Your task to perform on an android device: Do I have any events this weekend? Image 0: 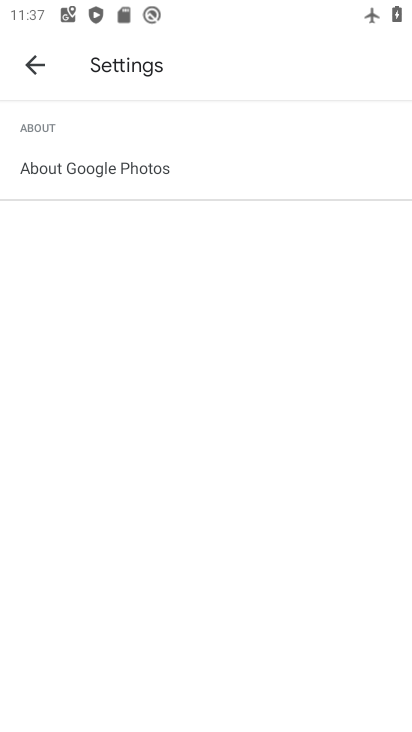
Step 0: press home button
Your task to perform on an android device: Do I have any events this weekend? Image 1: 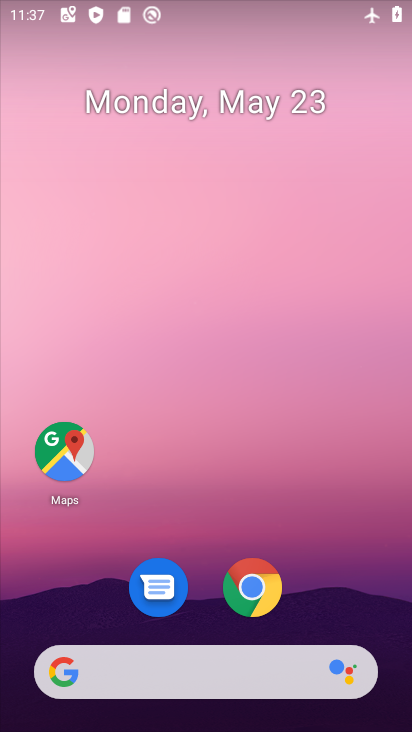
Step 1: drag from (376, 593) to (276, 237)
Your task to perform on an android device: Do I have any events this weekend? Image 2: 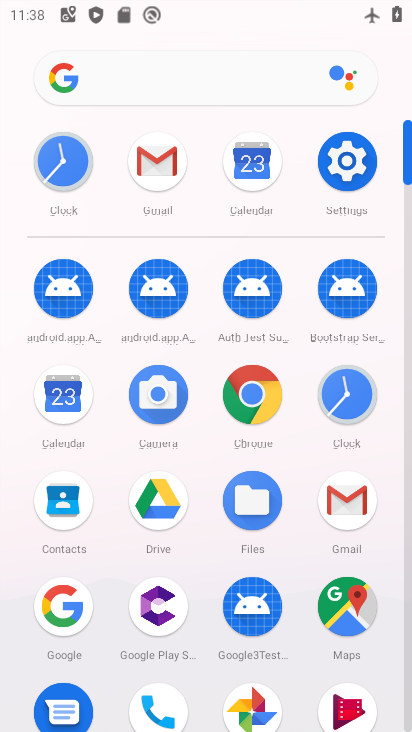
Step 2: click (264, 186)
Your task to perform on an android device: Do I have any events this weekend? Image 3: 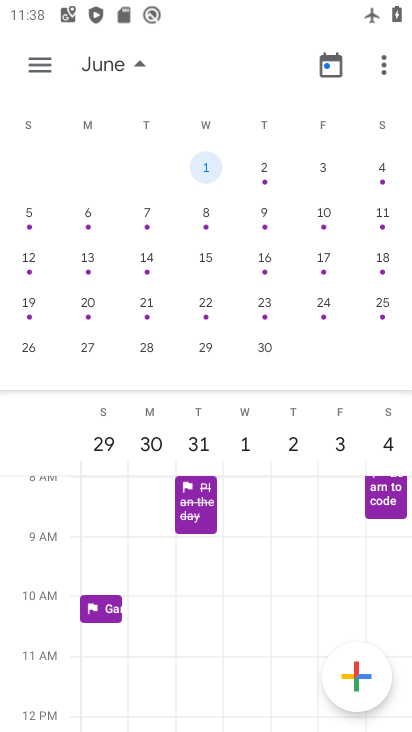
Step 3: click (120, 71)
Your task to perform on an android device: Do I have any events this weekend? Image 4: 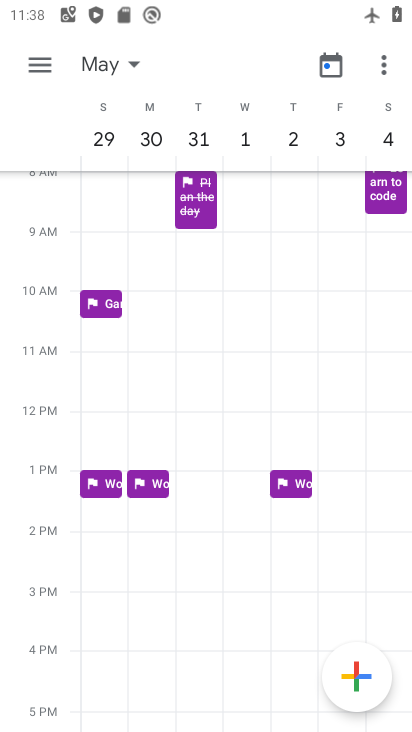
Step 4: click (127, 72)
Your task to perform on an android device: Do I have any events this weekend? Image 5: 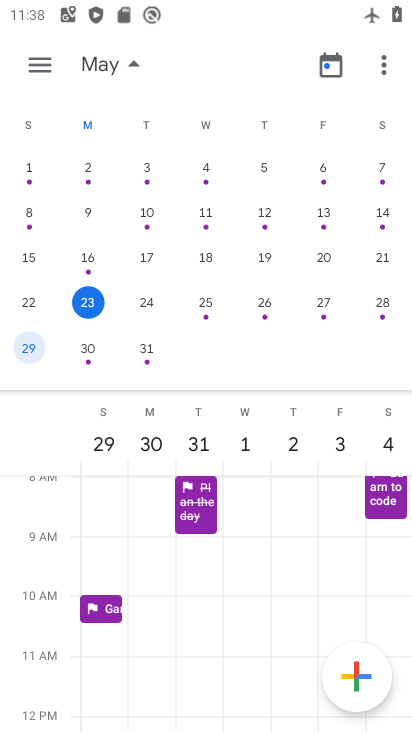
Step 5: click (90, 305)
Your task to perform on an android device: Do I have any events this weekend? Image 6: 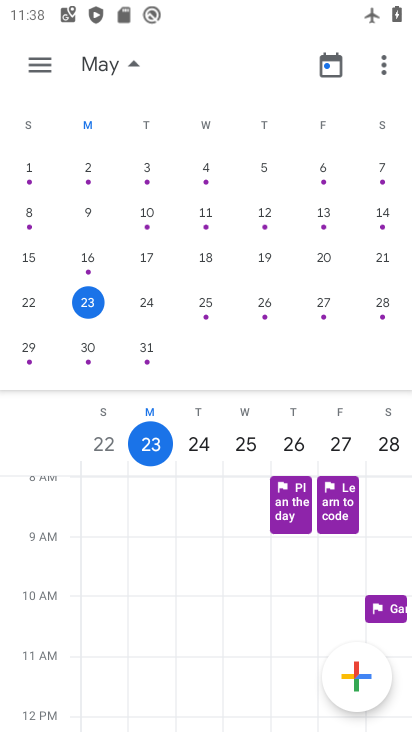
Step 6: click (375, 311)
Your task to perform on an android device: Do I have any events this weekend? Image 7: 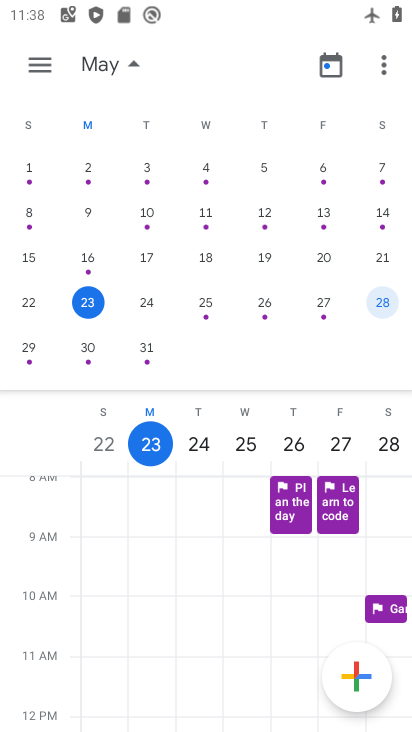
Step 7: click (124, 67)
Your task to perform on an android device: Do I have any events this weekend? Image 8: 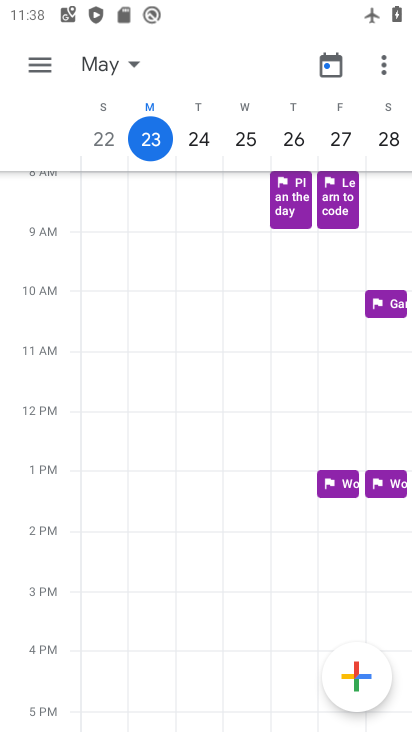
Step 8: task complete